Your task to perform on an android device: change text size in settings app Image 0: 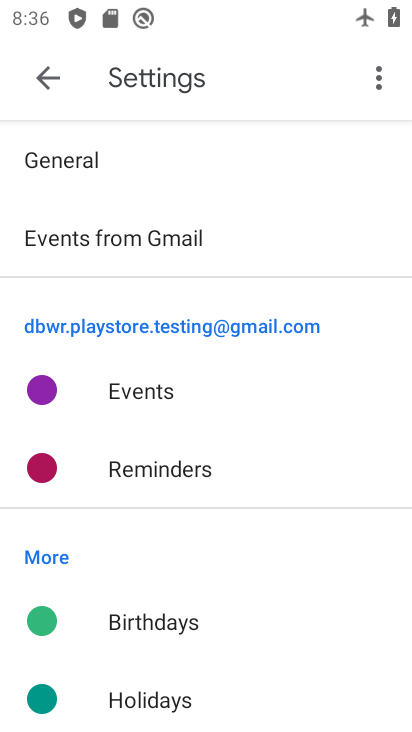
Step 0: press home button
Your task to perform on an android device: change text size in settings app Image 1: 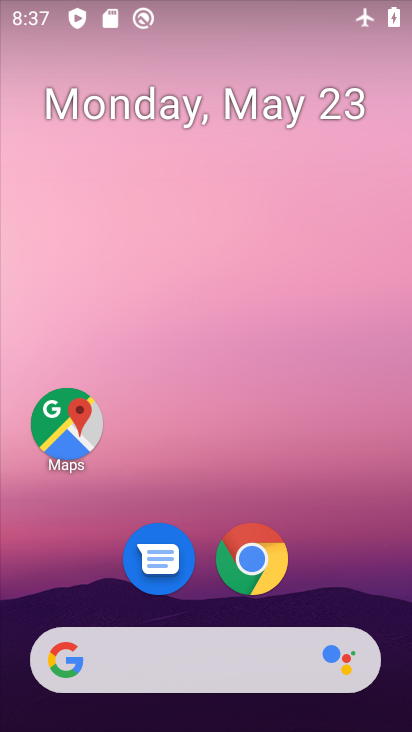
Step 1: drag from (222, 604) to (211, 118)
Your task to perform on an android device: change text size in settings app Image 2: 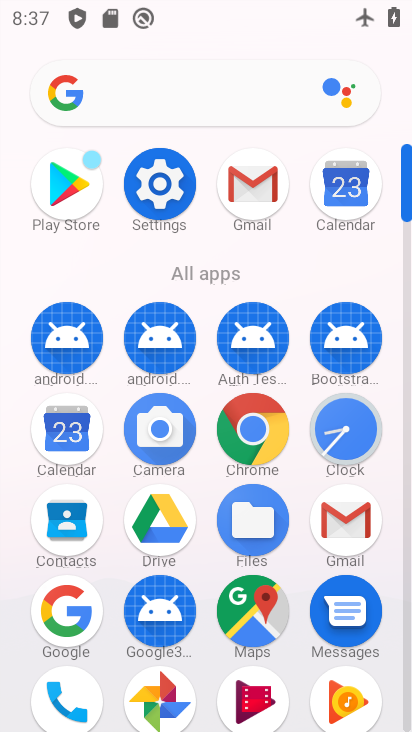
Step 2: click (156, 189)
Your task to perform on an android device: change text size in settings app Image 3: 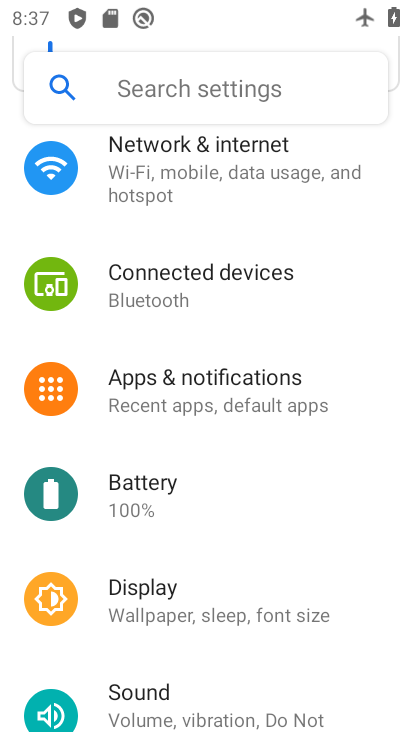
Step 3: click (194, 620)
Your task to perform on an android device: change text size in settings app Image 4: 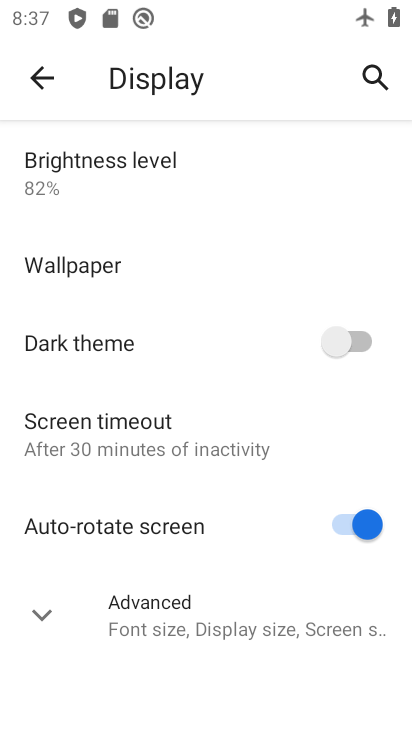
Step 4: click (201, 604)
Your task to perform on an android device: change text size in settings app Image 5: 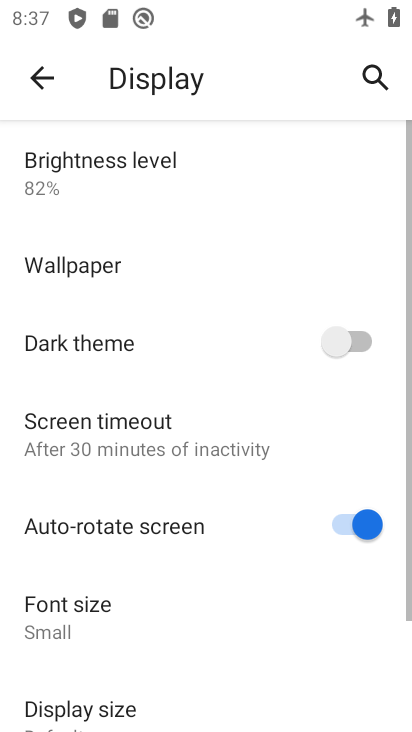
Step 5: click (201, 598)
Your task to perform on an android device: change text size in settings app Image 6: 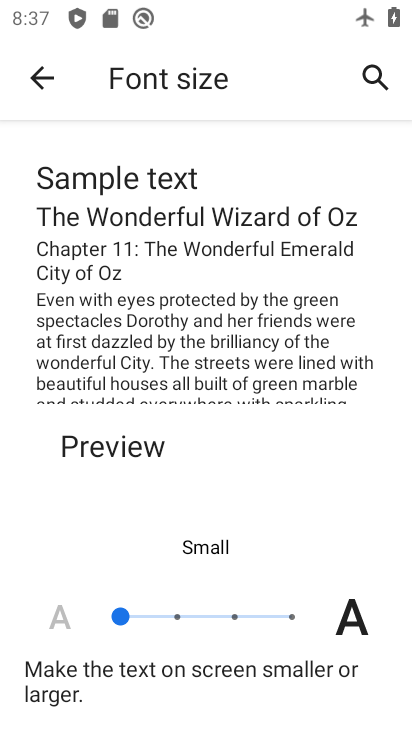
Step 6: click (192, 601)
Your task to perform on an android device: change text size in settings app Image 7: 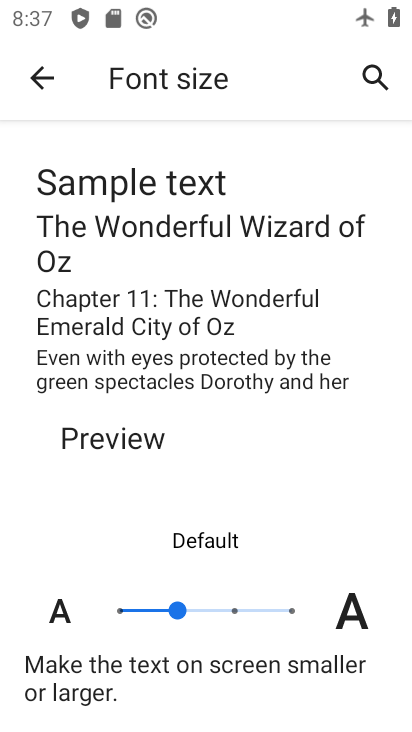
Step 7: task complete